Your task to perform on an android device: turn pop-ups on in chrome Image 0: 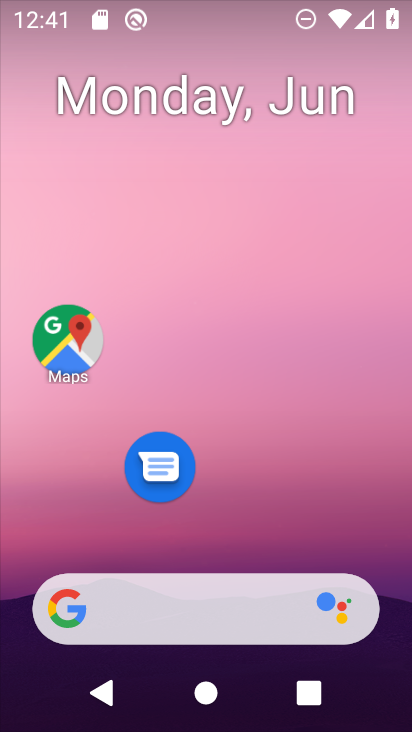
Step 0: drag from (325, 531) to (360, 18)
Your task to perform on an android device: turn pop-ups on in chrome Image 1: 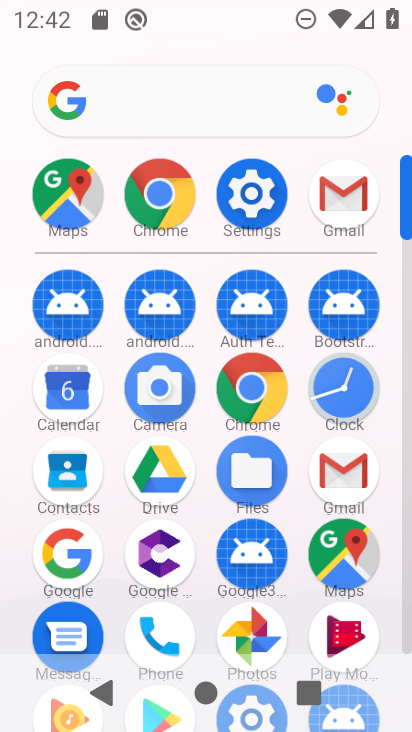
Step 1: drag from (308, 471) to (287, 414)
Your task to perform on an android device: turn pop-ups on in chrome Image 2: 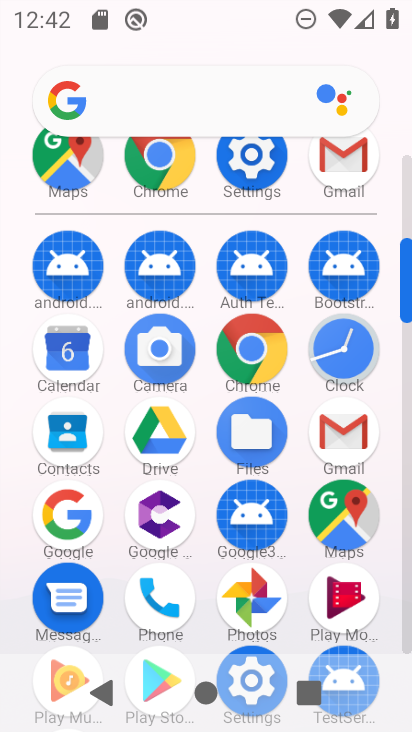
Step 2: click (146, 613)
Your task to perform on an android device: turn pop-ups on in chrome Image 3: 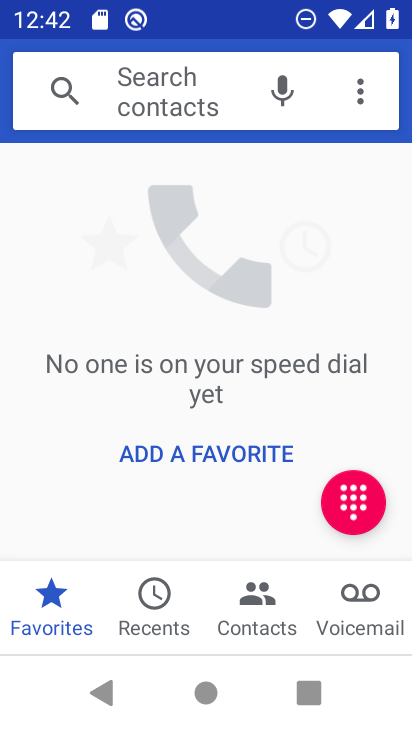
Step 3: press home button
Your task to perform on an android device: turn pop-ups on in chrome Image 4: 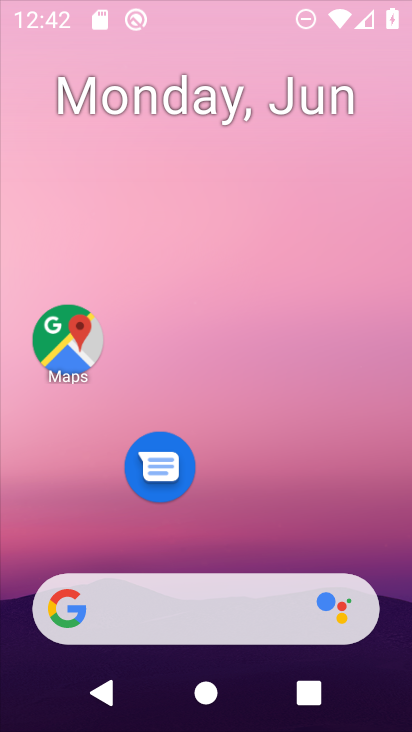
Step 4: drag from (259, 605) to (239, 137)
Your task to perform on an android device: turn pop-ups on in chrome Image 5: 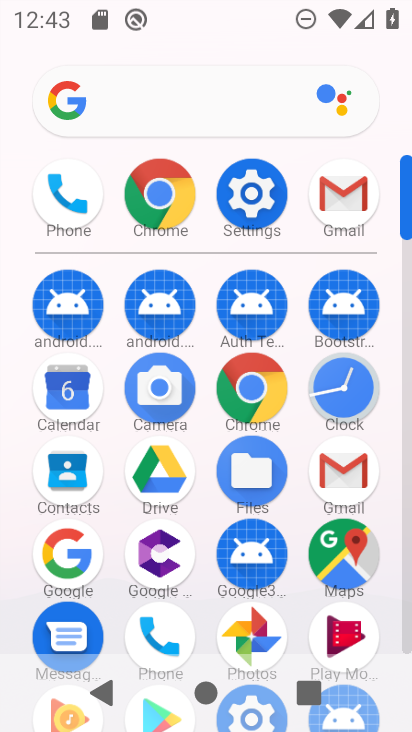
Step 5: click (269, 384)
Your task to perform on an android device: turn pop-ups on in chrome Image 6: 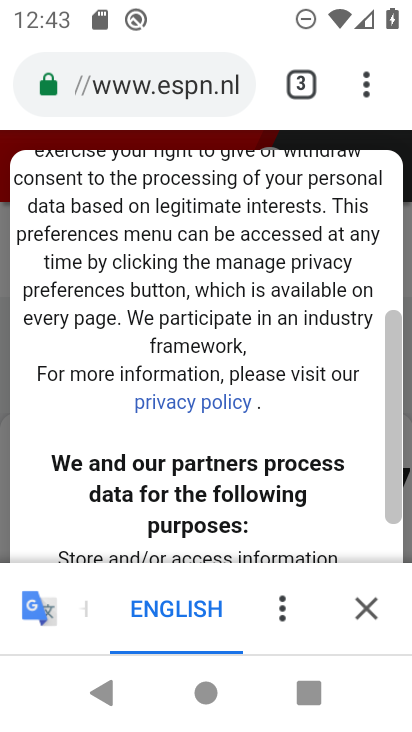
Step 6: drag from (362, 88) to (93, 504)
Your task to perform on an android device: turn pop-ups on in chrome Image 7: 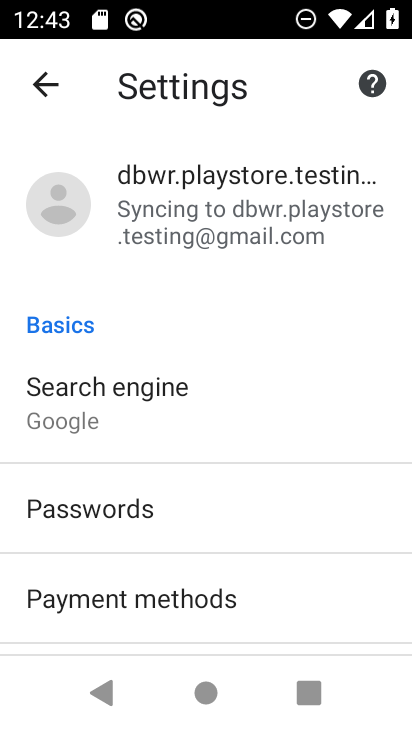
Step 7: drag from (363, 587) to (204, 98)
Your task to perform on an android device: turn pop-ups on in chrome Image 8: 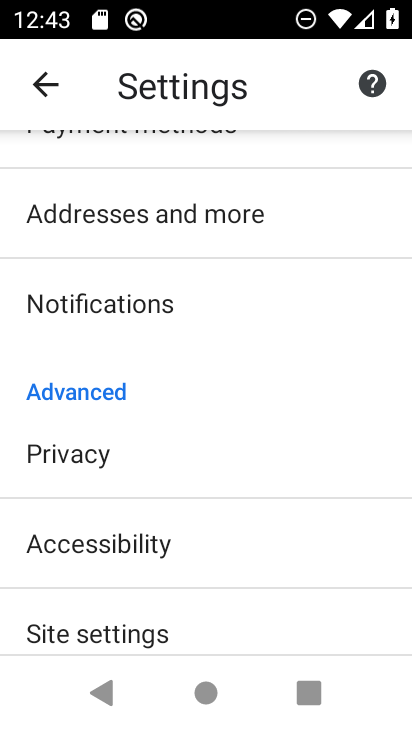
Step 8: drag from (290, 500) to (114, 219)
Your task to perform on an android device: turn pop-ups on in chrome Image 9: 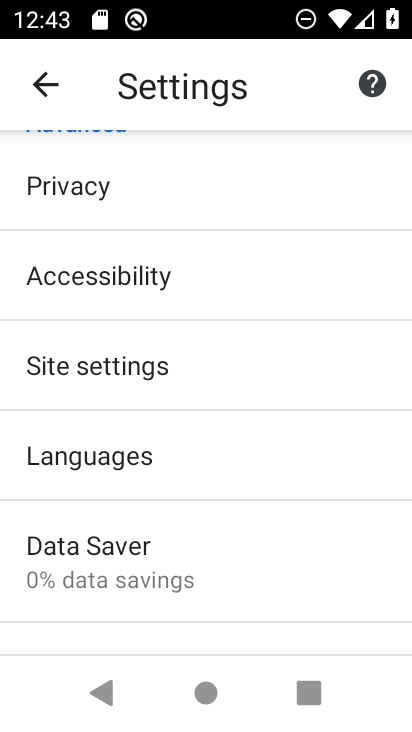
Step 9: click (182, 365)
Your task to perform on an android device: turn pop-ups on in chrome Image 10: 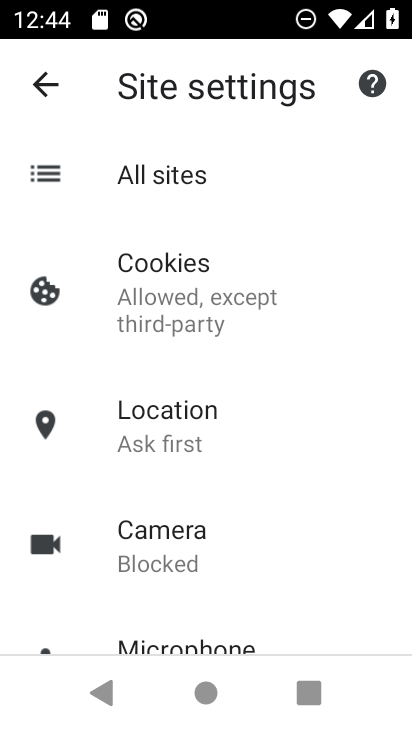
Step 10: drag from (274, 521) to (356, 311)
Your task to perform on an android device: turn pop-ups on in chrome Image 11: 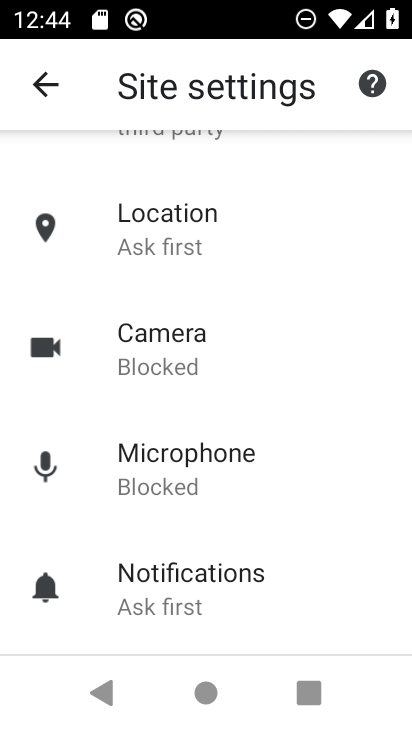
Step 11: drag from (277, 555) to (183, 120)
Your task to perform on an android device: turn pop-ups on in chrome Image 12: 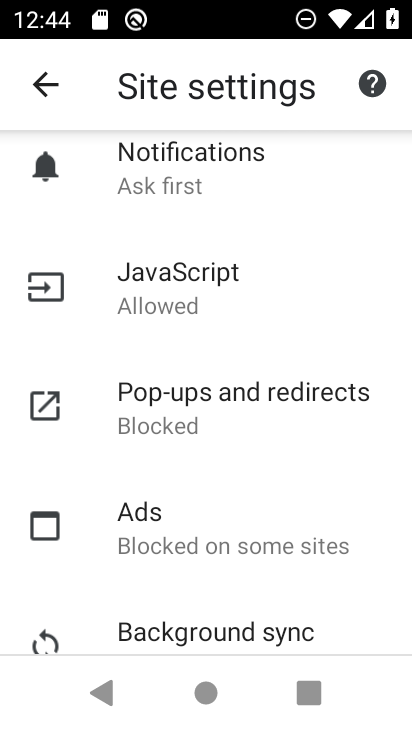
Step 12: click (251, 398)
Your task to perform on an android device: turn pop-ups on in chrome Image 13: 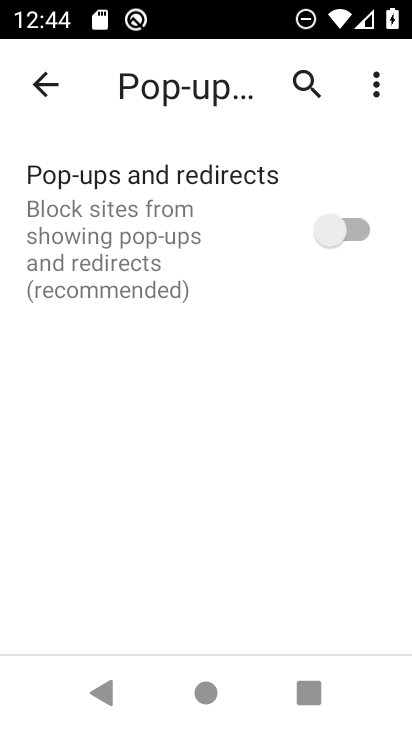
Step 13: click (229, 239)
Your task to perform on an android device: turn pop-ups on in chrome Image 14: 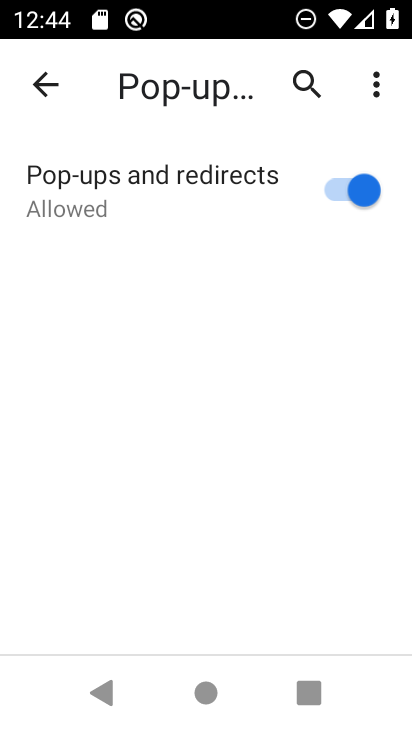
Step 14: task complete